Your task to perform on an android device: see sites visited before in the chrome app Image 0: 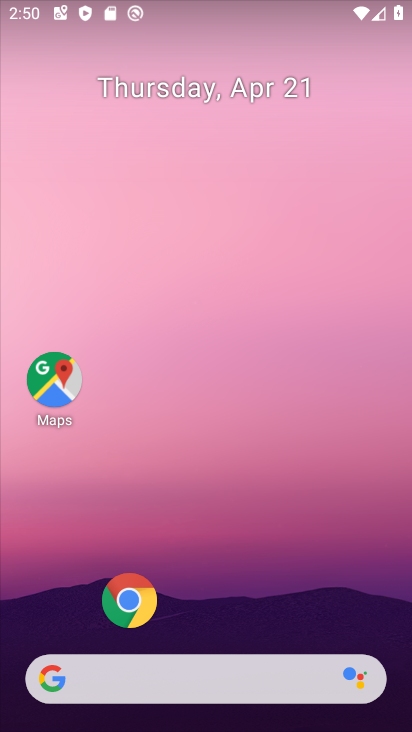
Step 0: click (140, 603)
Your task to perform on an android device: see sites visited before in the chrome app Image 1: 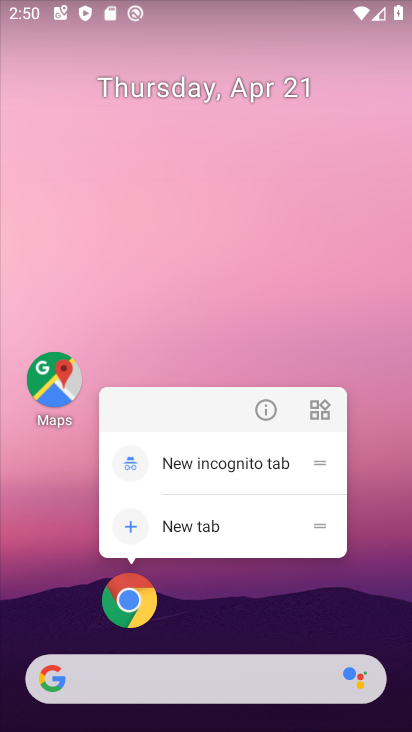
Step 1: click (285, 611)
Your task to perform on an android device: see sites visited before in the chrome app Image 2: 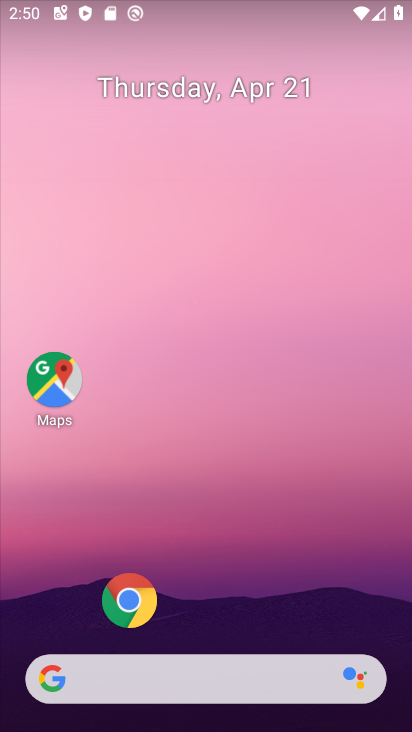
Step 2: click (133, 601)
Your task to perform on an android device: see sites visited before in the chrome app Image 3: 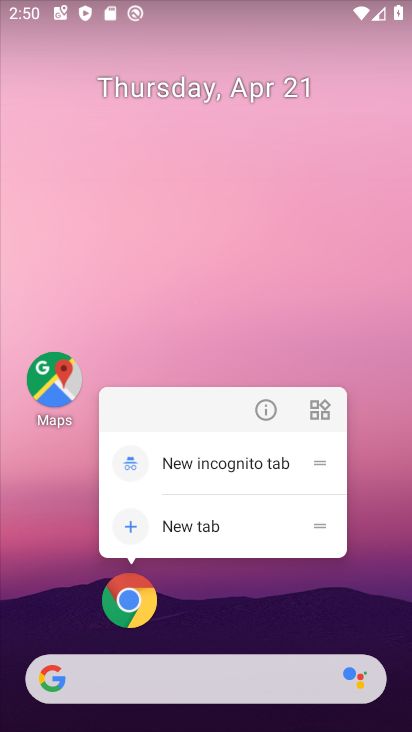
Step 3: click (133, 601)
Your task to perform on an android device: see sites visited before in the chrome app Image 4: 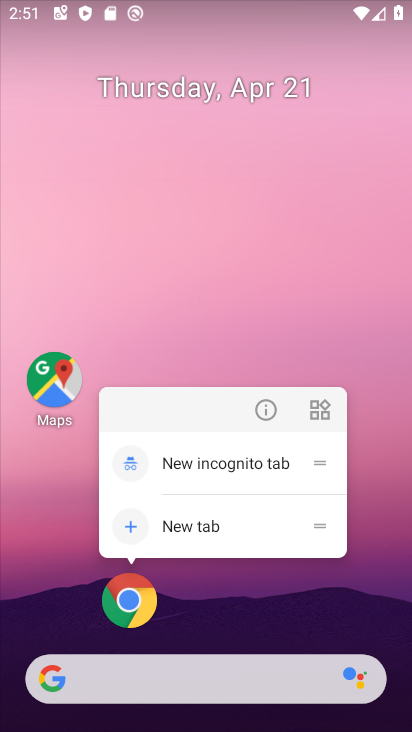
Step 4: click (133, 600)
Your task to perform on an android device: see sites visited before in the chrome app Image 5: 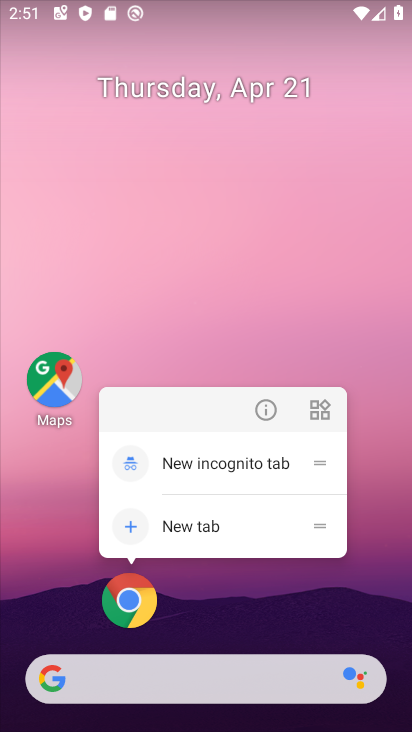
Step 5: click (132, 606)
Your task to perform on an android device: see sites visited before in the chrome app Image 6: 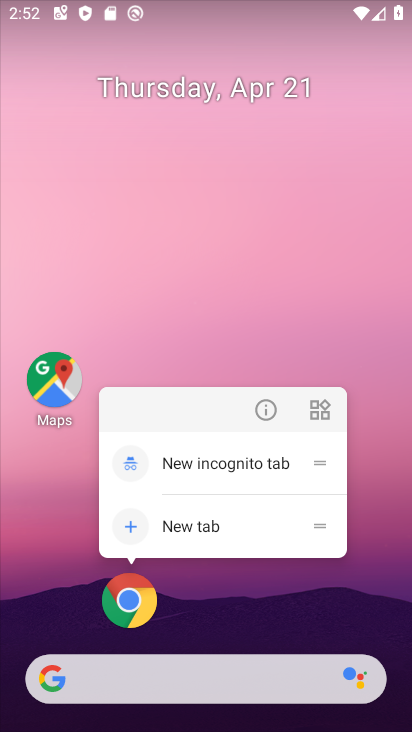
Step 6: click (131, 587)
Your task to perform on an android device: see sites visited before in the chrome app Image 7: 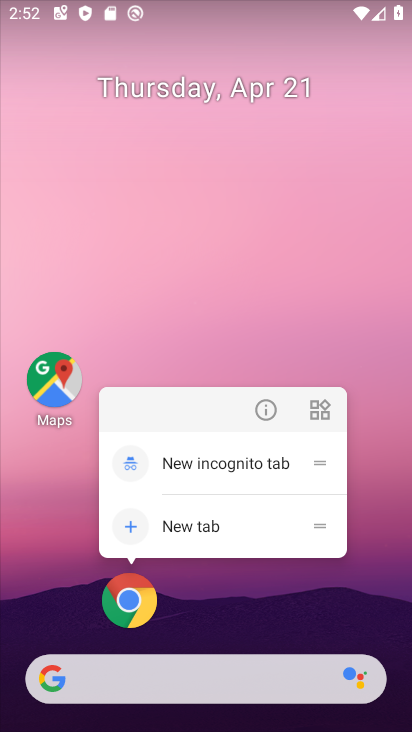
Step 7: click (125, 599)
Your task to perform on an android device: see sites visited before in the chrome app Image 8: 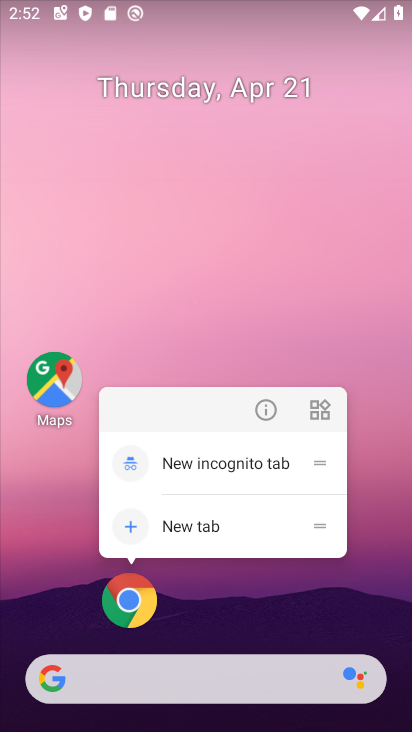
Step 8: click (260, 416)
Your task to perform on an android device: see sites visited before in the chrome app Image 9: 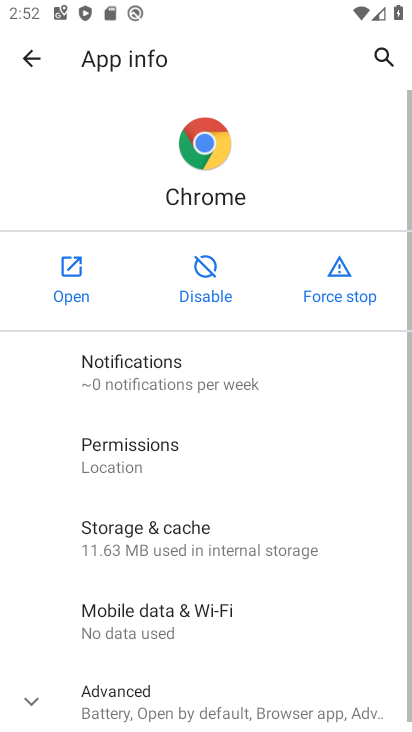
Step 9: click (59, 291)
Your task to perform on an android device: see sites visited before in the chrome app Image 10: 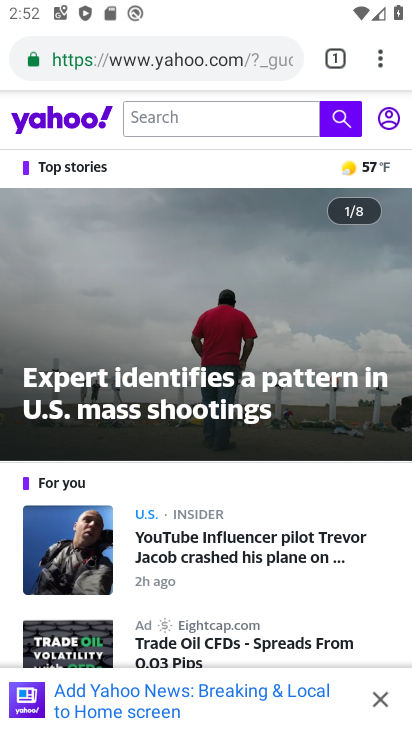
Step 10: click (376, 56)
Your task to perform on an android device: see sites visited before in the chrome app Image 11: 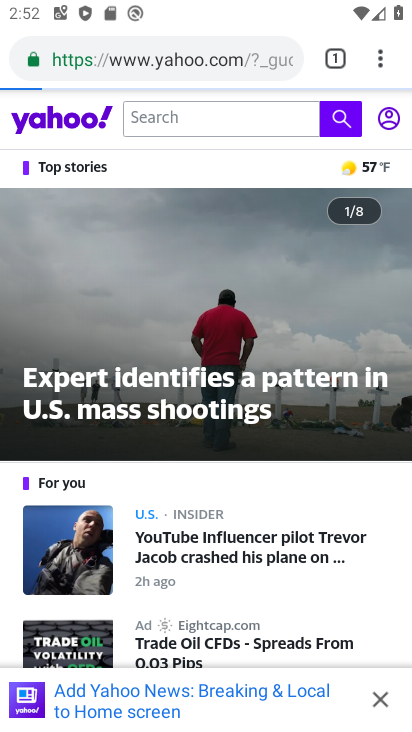
Step 11: click (376, 56)
Your task to perform on an android device: see sites visited before in the chrome app Image 12: 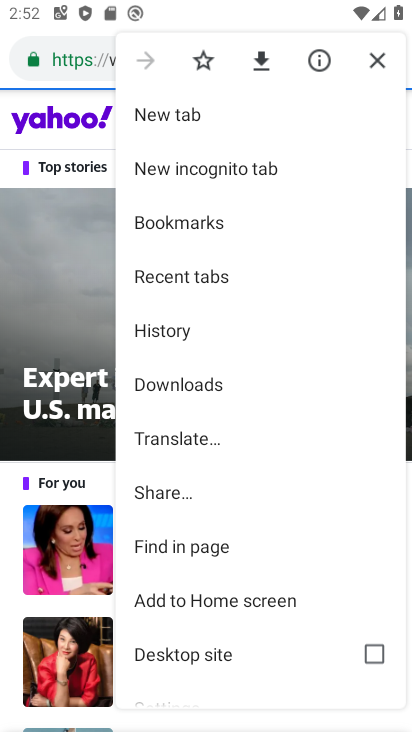
Step 12: click (190, 325)
Your task to perform on an android device: see sites visited before in the chrome app Image 13: 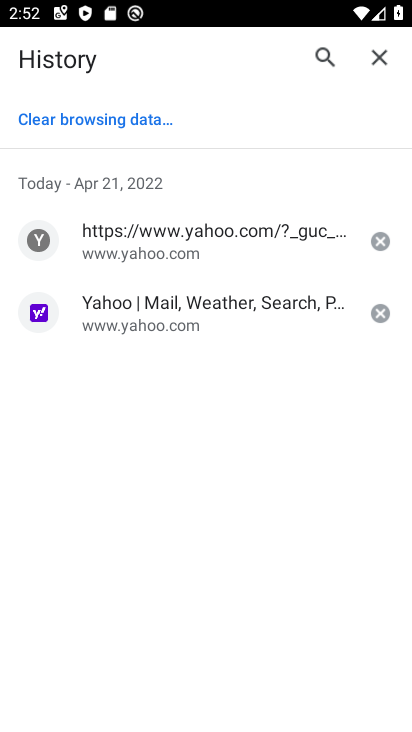
Step 13: task complete